Your task to perform on an android device: Go to Android settings Image 0: 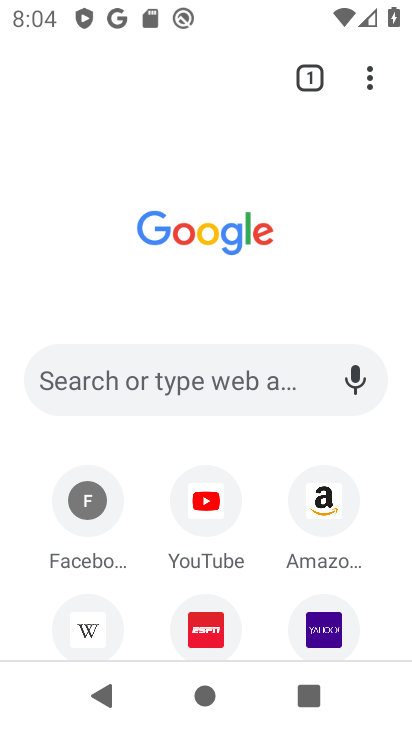
Step 0: press back button
Your task to perform on an android device: Go to Android settings Image 1: 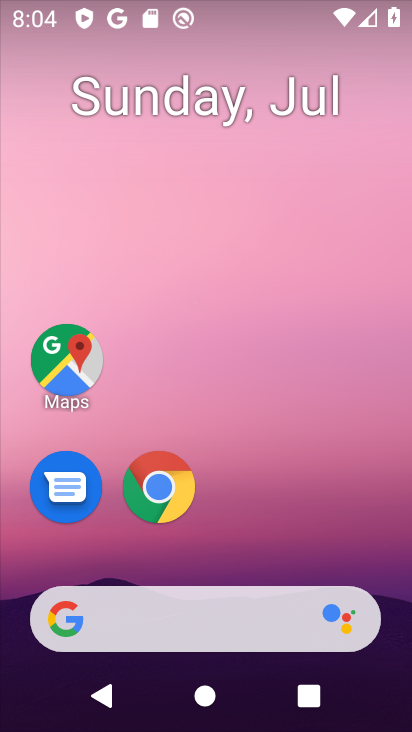
Step 1: drag from (266, 558) to (329, 2)
Your task to perform on an android device: Go to Android settings Image 2: 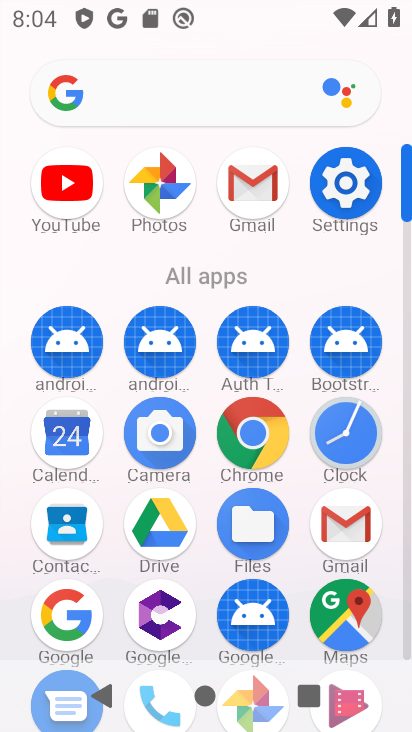
Step 2: click (351, 174)
Your task to perform on an android device: Go to Android settings Image 3: 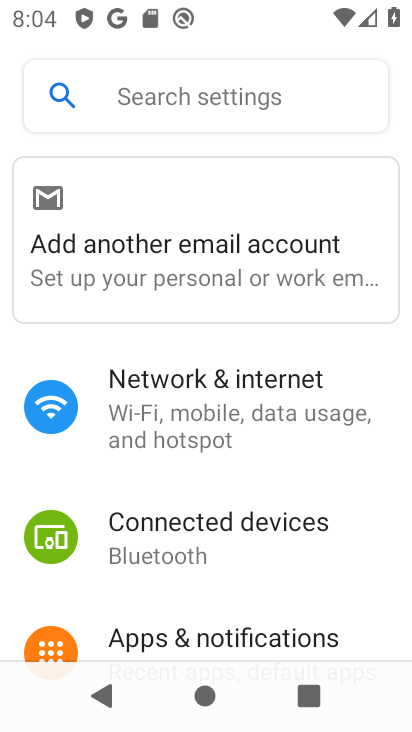
Step 3: drag from (140, 580) to (255, 96)
Your task to perform on an android device: Go to Android settings Image 4: 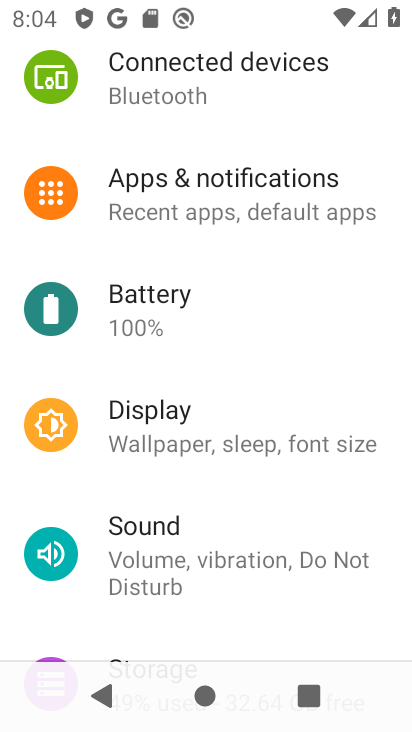
Step 4: drag from (242, 572) to (283, 18)
Your task to perform on an android device: Go to Android settings Image 5: 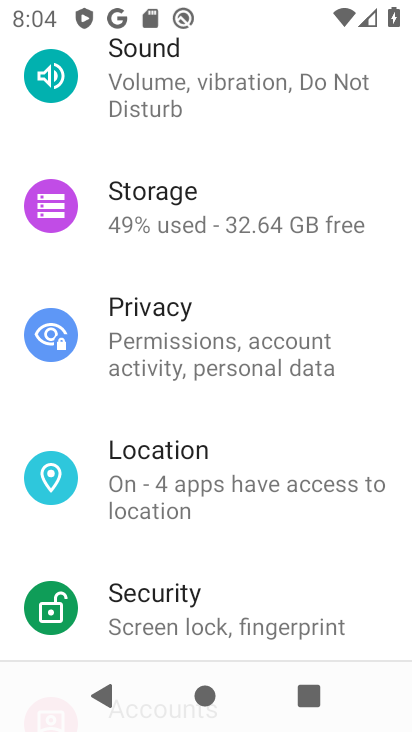
Step 5: drag from (155, 611) to (291, 37)
Your task to perform on an android device: Go to Android settings Image 6: 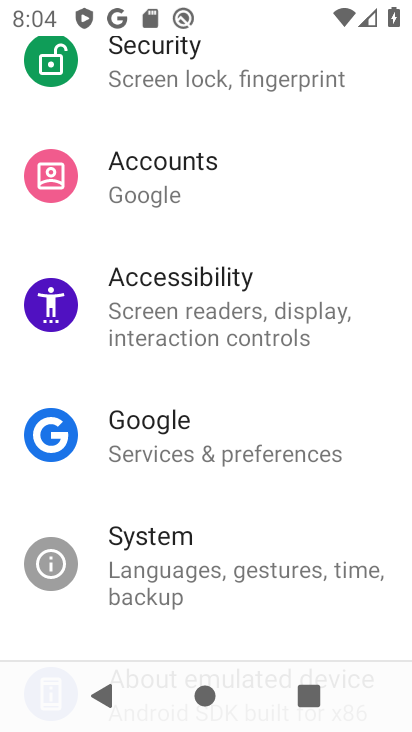
Step 6: drag from (175, 597) to (294, 0)
Your task to perform on an android device: Go to Android settings Image 7: 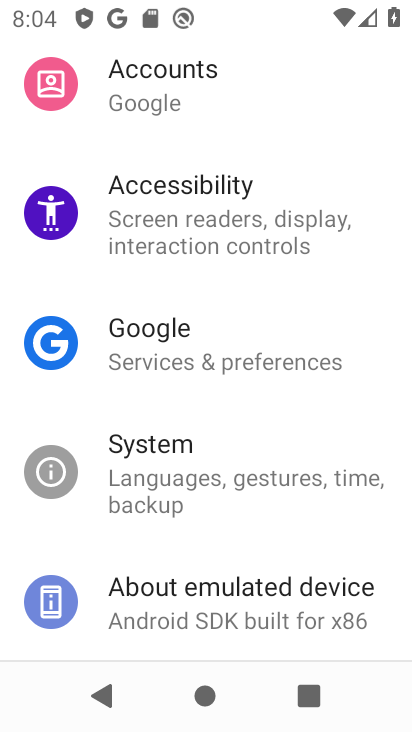
Step 7: click (177, 599)
Your task to perform on an android device: Go to Android settings Image 8: 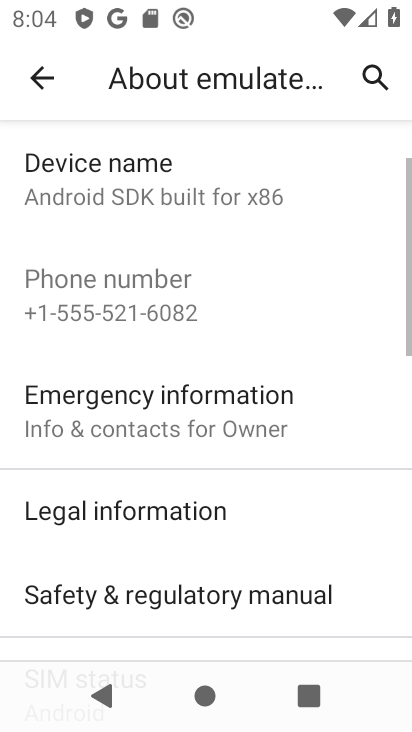
Step 8: drag from (186, 589) to (299, 18)
Your task to perform on an android device: Go to Android settings Image 9: 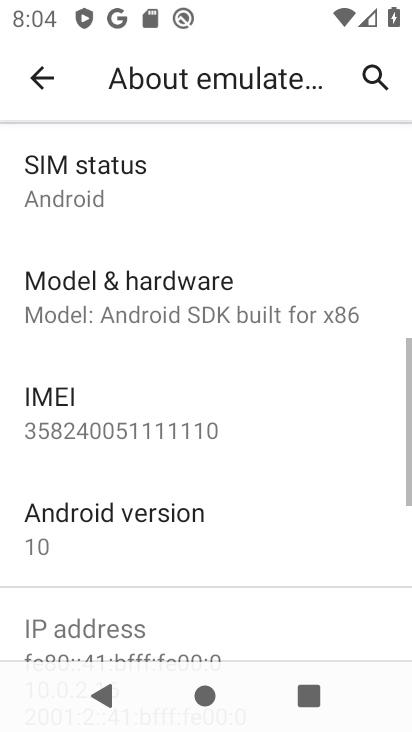
Step 9: click (118, 523)
Your task to perform on an android device: Go to Android settings Image 10: 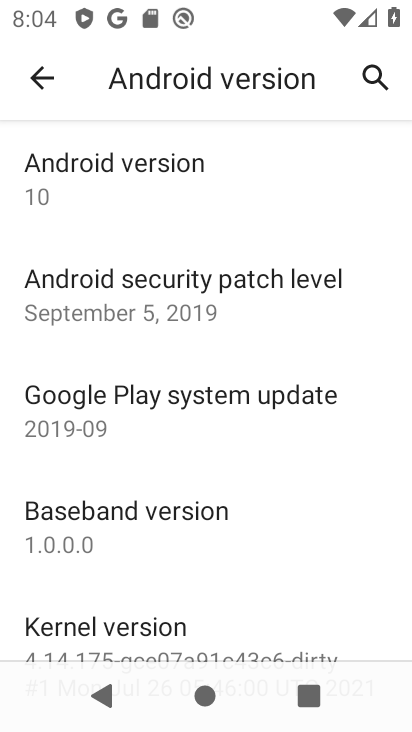
Step 10: task complete